Your task to perform on an android device: change the clock display to analog Image 0: 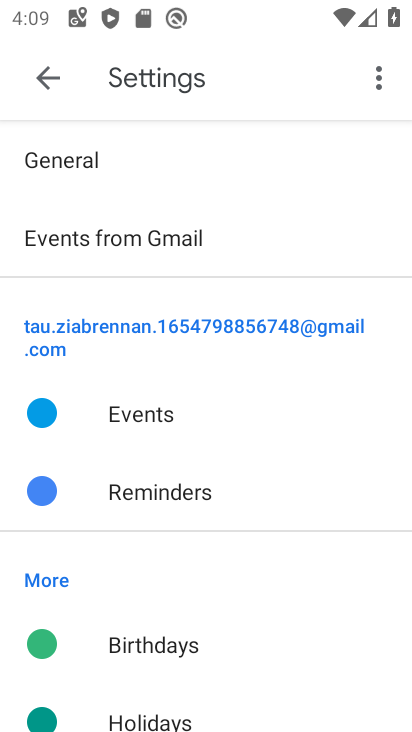
Step 0: press back button
Your task to perform on an android device: change the clock display to analog Image 1: 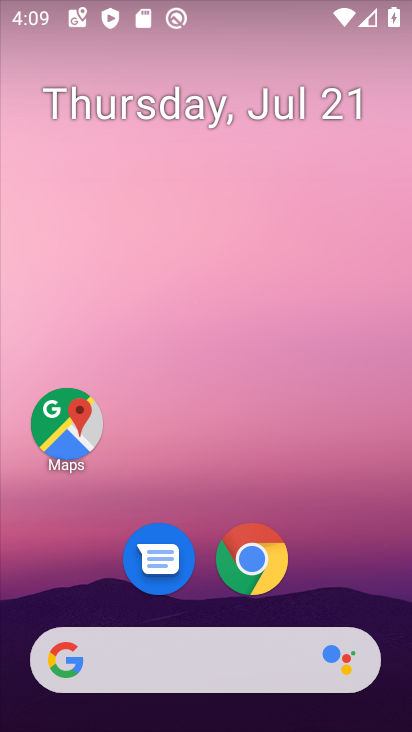
Step 1: drag from (60, 591) to (208, 45)
Your task to perform on an android device: change the clock display to analog Image 2: 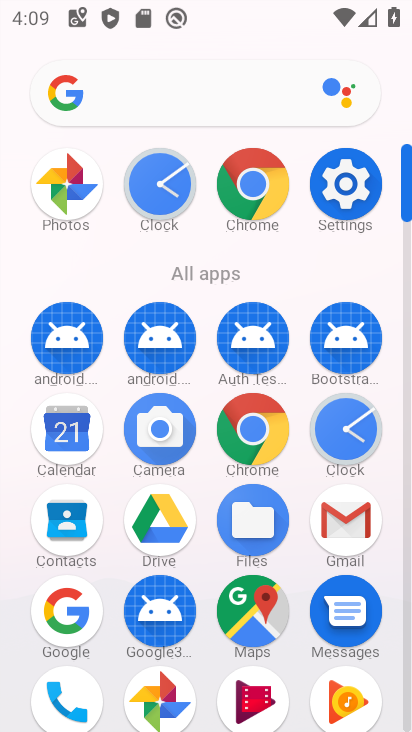
Step 2: click (164, 177)
Your task to perform on an android device: change the clock display to analog Image 3: 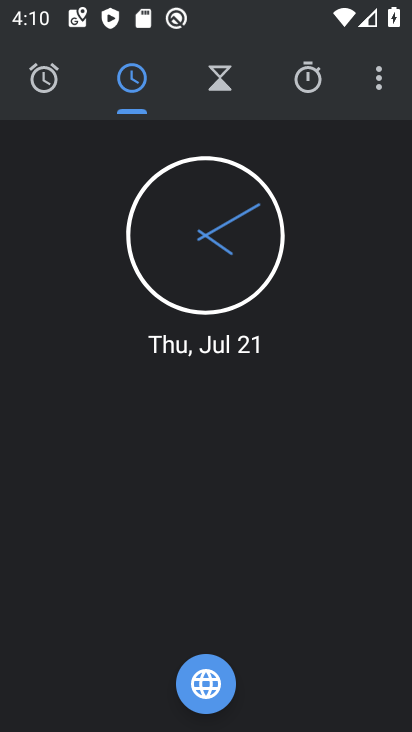
Step 3: click (382, 76)
Your task to perform on an android device: change the clock display to analog Image 4: 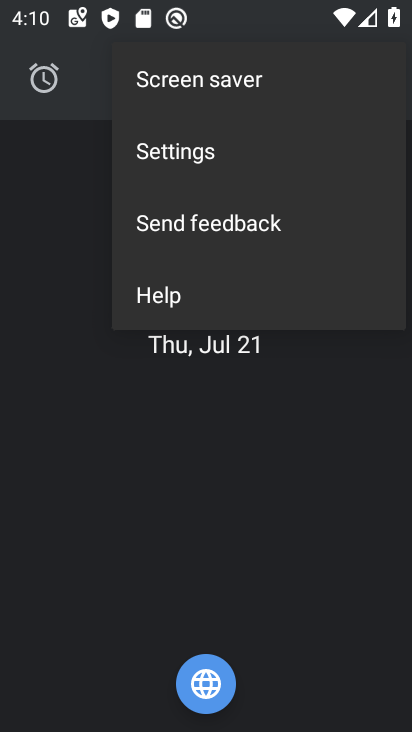
Step 4: click (161, 147)
Your task to perform on an android device: change the clock display to analog Image 5: 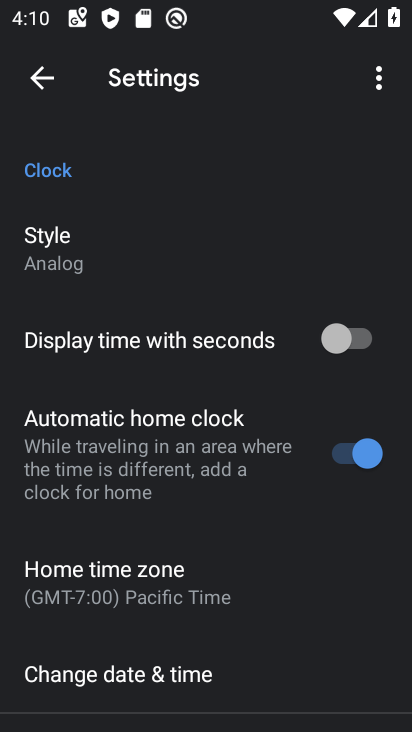
Step 5: task complete